Your task to perform on an android device: Open Google Chrome and open the bookmarks view Image 0: 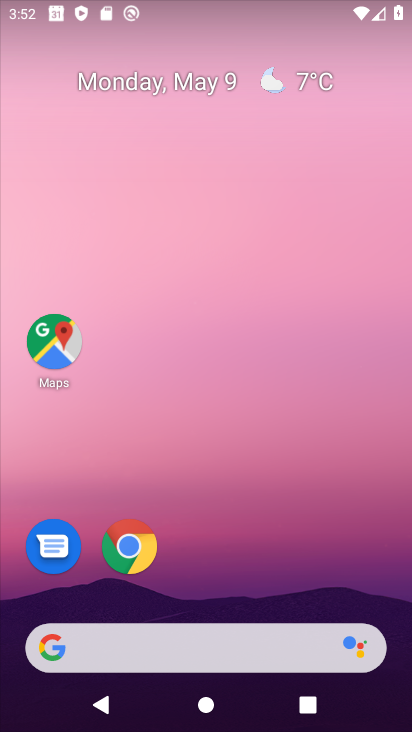
Step 0: click (127, 556)
Your task to perform on an android device: Open Google Chrome and open the bookmarks view Image 1: 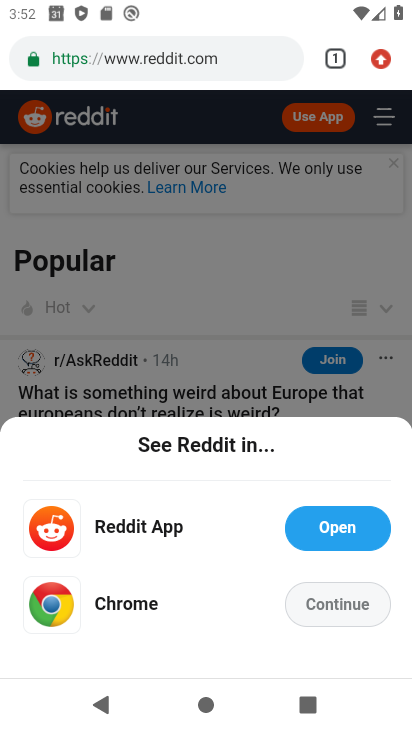
Step 1: task complete